Your task to perform on an android device: search for starred emails in the gmail app Image 0: 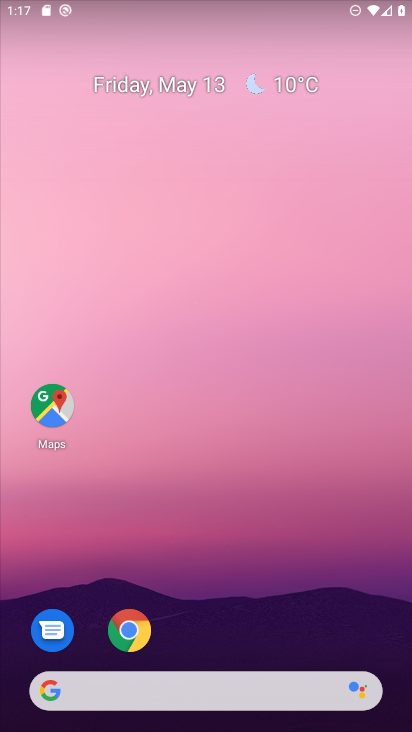
Step 0: drag from (219, 681) to (211, 9)
Your task to perform on an android device: search for starred emails in the gmail app Image 1: 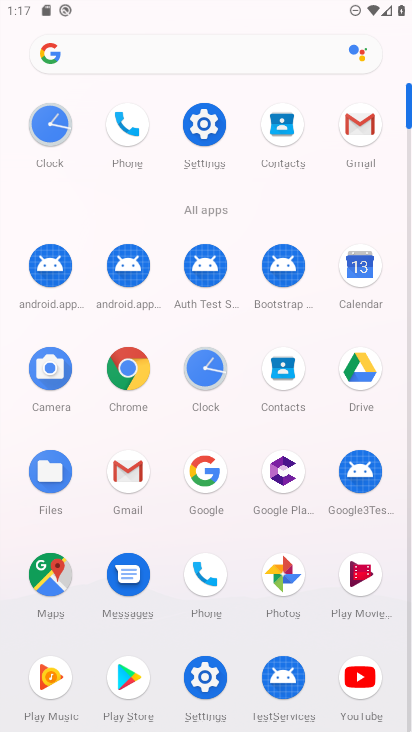
Step 1: click (360, 133)
Your task to perform on an android device: search for starred emails in the gmail app Image 2: 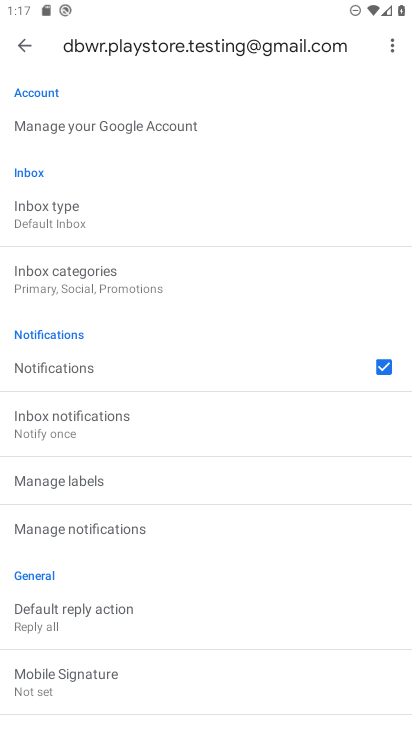
Step 2: click (21, 52)
Your task to perform on an android device: search for starred emails in the gmail app Image 3: 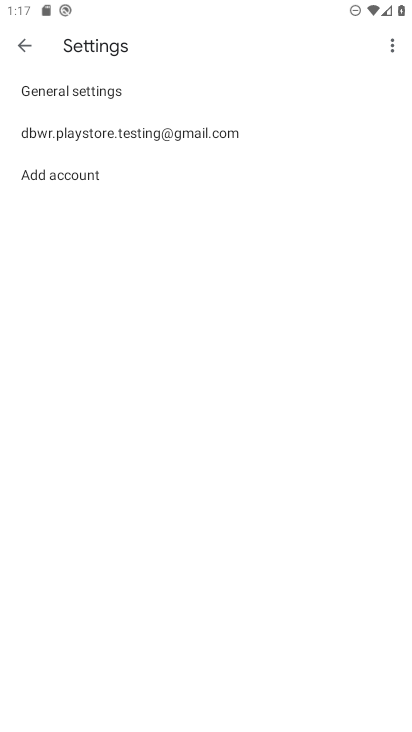
Step 3: click (25, 40)
Your task to perform on an android device: search for starred emails in the gmail app Image 4: 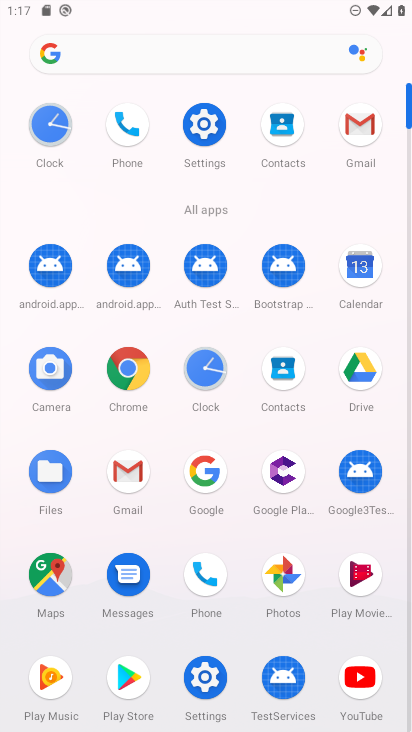
Step 4: click (363, 101)
Your task to perform on an android device: search for starred emails in the gmail app Image 5: 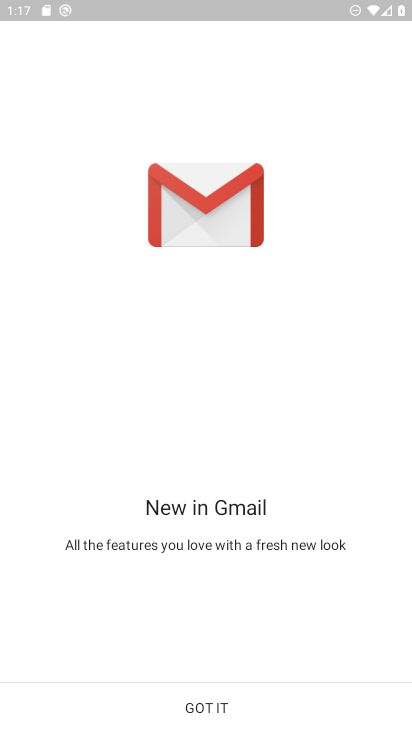
Step 5: click (184, 717)
Your task to perform on an android device: search for starred emails in the gmail app Image 6: 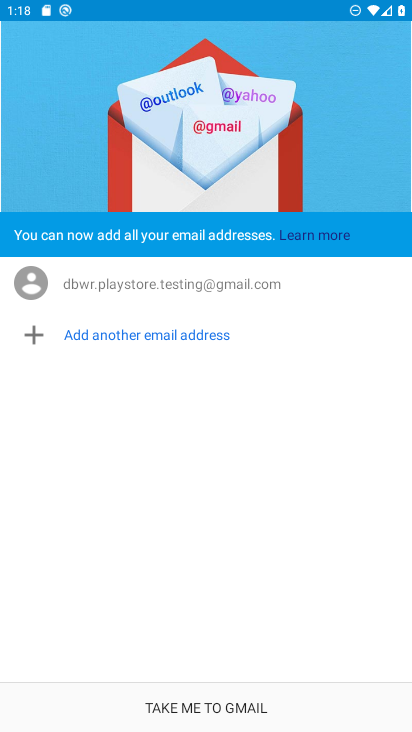
Step 6: click (217, 702)
Your task to perform on an android device: search for starred emails in the gmail app Image 7: 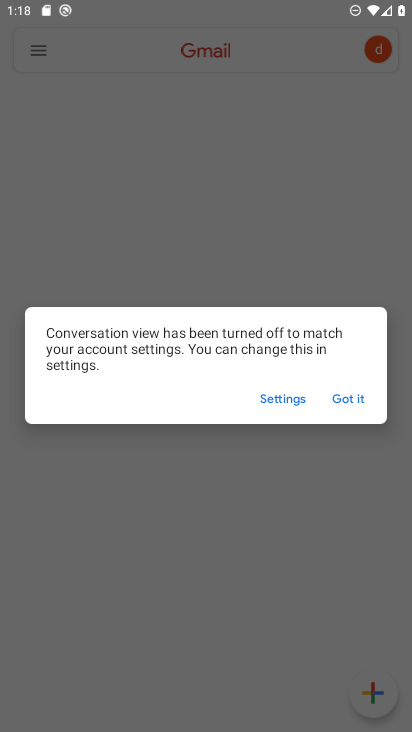
Step 7: click (337, 415)
Your task to perform on an android device: search for starred emails in the gmail app Image 8: 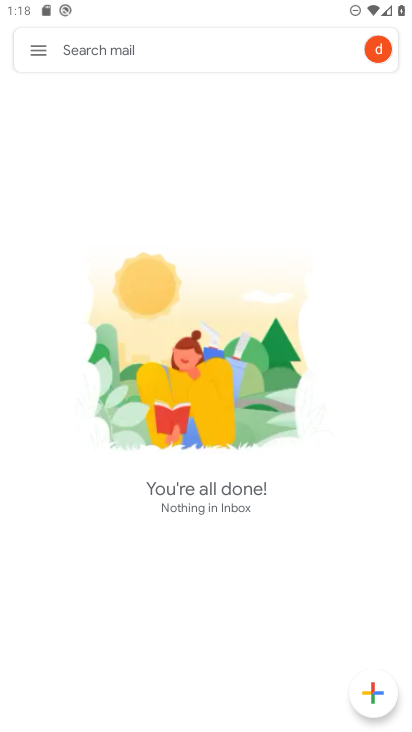
Step 8: click (28, 54)
Your task to perform on an android device: search for starred emails in the gmail app Image 9: 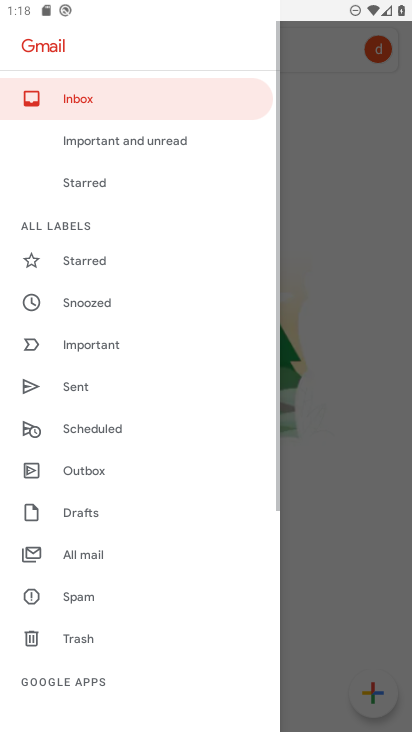
Step 9: click (92, 180)
Your task to perform on an android device: search for starred emails in the gmail app Image 10: 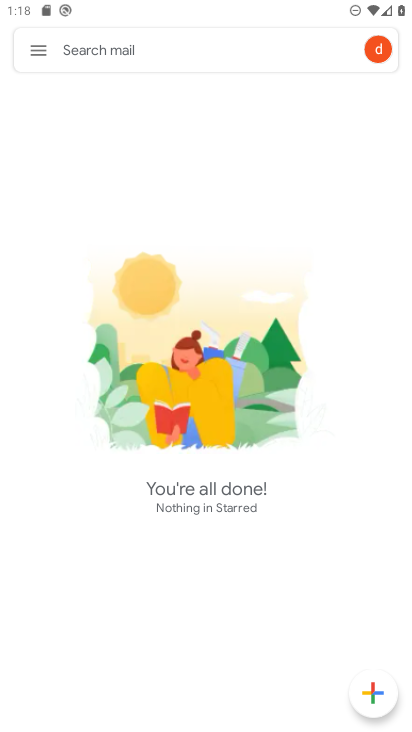
Step 10: task complete